Your task to perform on an android device: turn notification dots off Image 0: 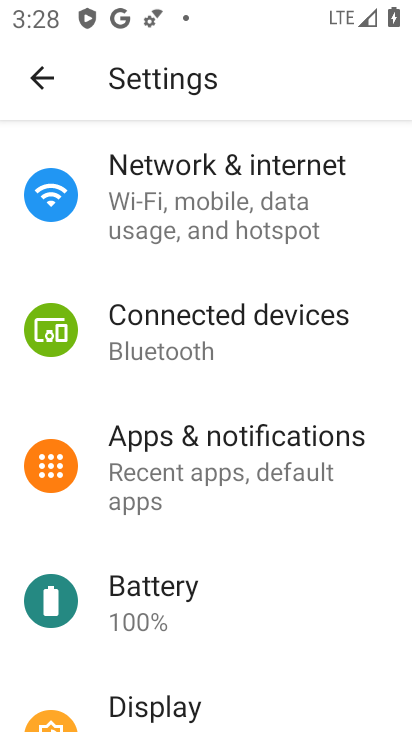
Step 0: press home button
Your task to perform on an android device: turn notification dots off Image 1: 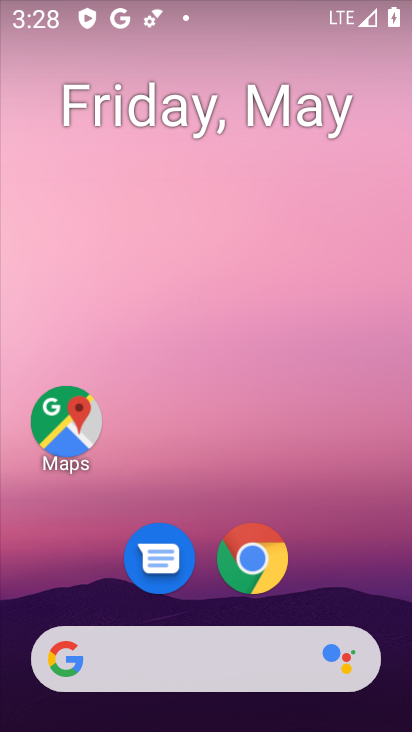
Step 1: drag from (204, 665) to (282, 169)
Your task to perform on an android device: turn notification dots off Image 2: 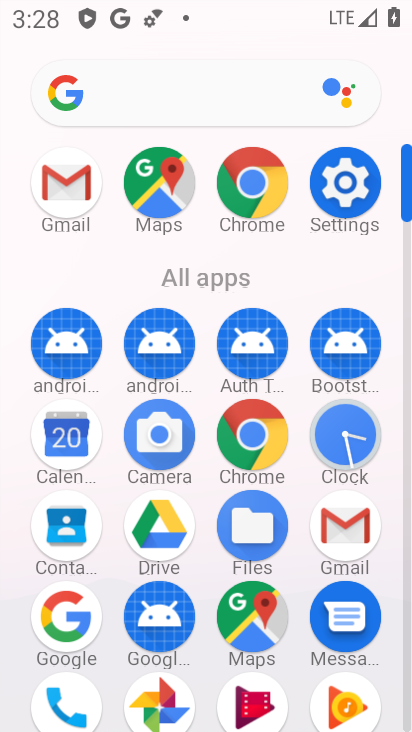
Step 2: click (347, 180)
Your task to perform on an android device: turn notification dots off Image 3: 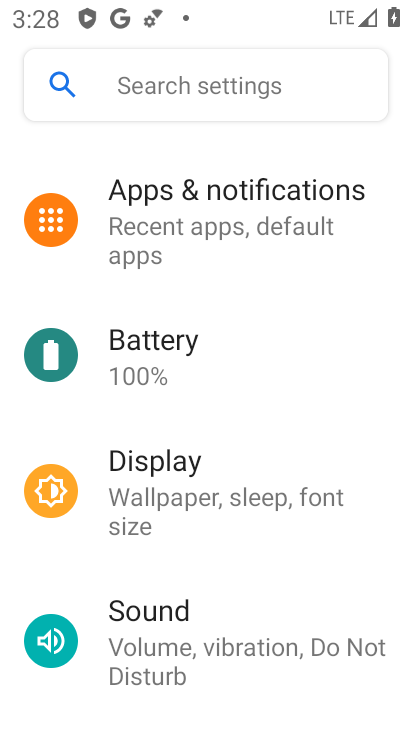
Step 3: click (234, 607)
Your task to perform on an android device: turn notification dots off Image 4: 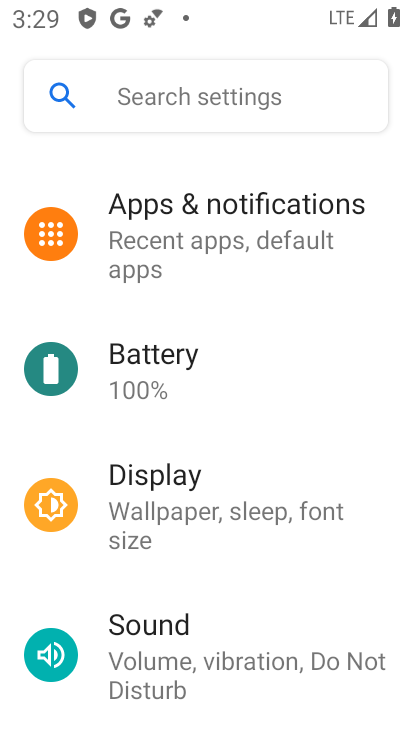
Step 4: click (268, 229)
Your task to perform on an android device: turn notification dots off Image 5: 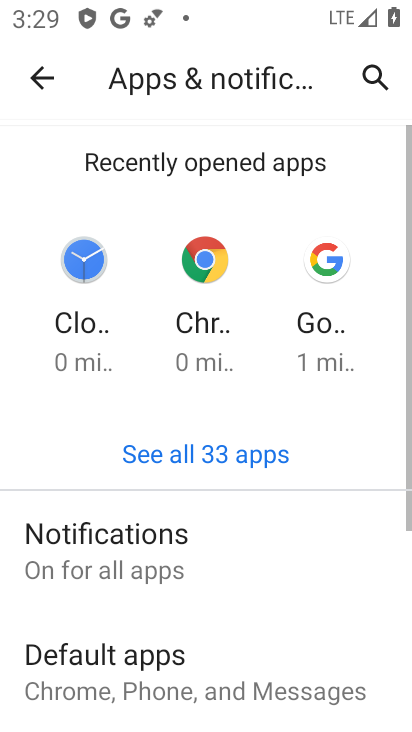
Step 5: click (170, 563)
Your task to perform on an android device: turn notification dots off Image 6: 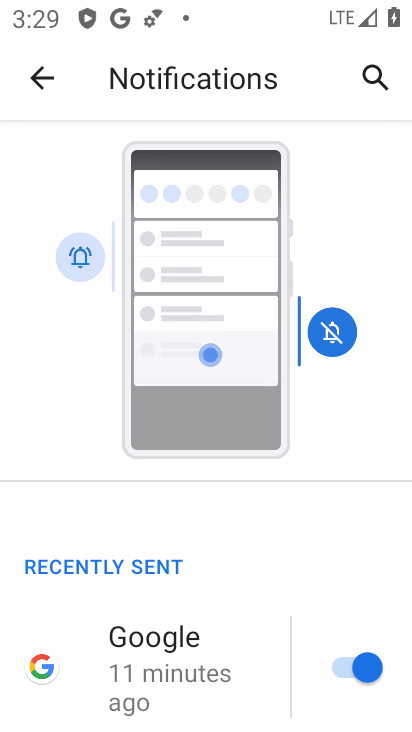
Step 6: drag from (222, 692) to (263, 218)
Your task to perform on an android device: turn notification dots off Image 7: 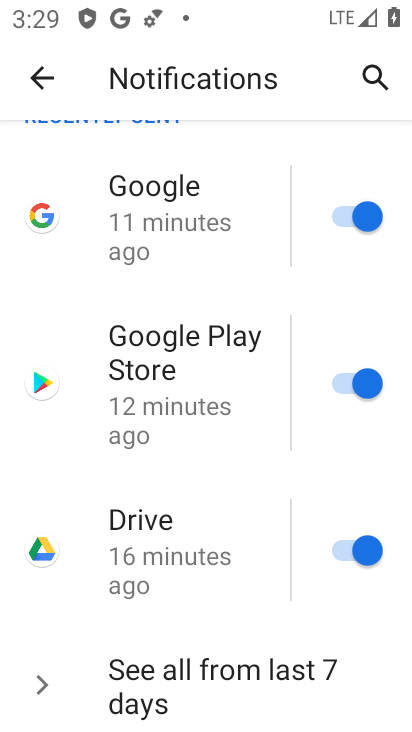
Step 7: drag from (202, 628) to (280, 205)
Your task to perform on an android device: turn notification dots off Image 8: 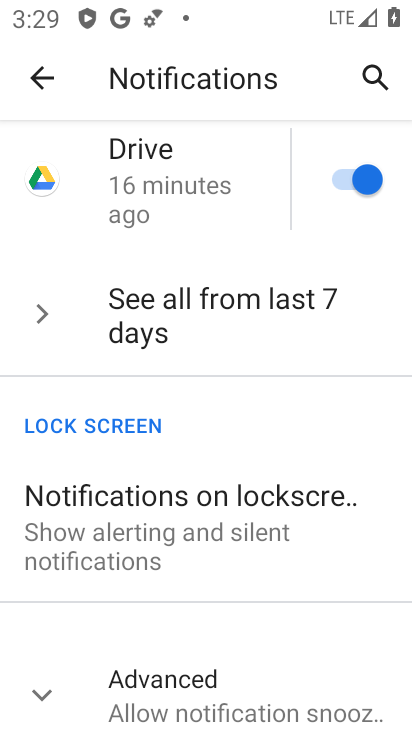
Step 8: click (177, 686)
Your task to perform on an android device: turn notification dots off Image 9: 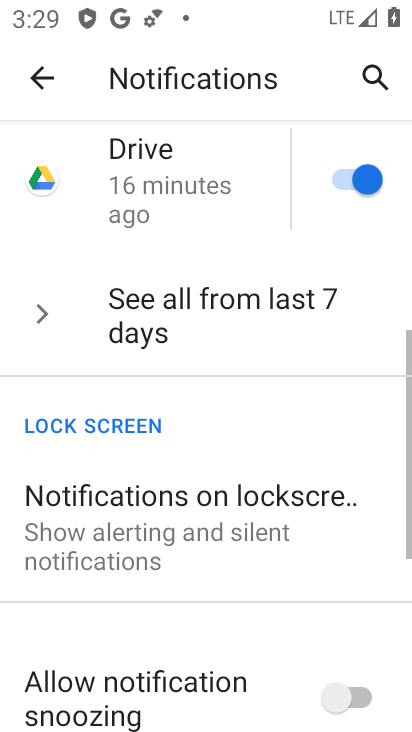
Step 9: drag from (224, 645) to (267, 251)
Your task to perform on an android device: turn notification dots off Image 10: 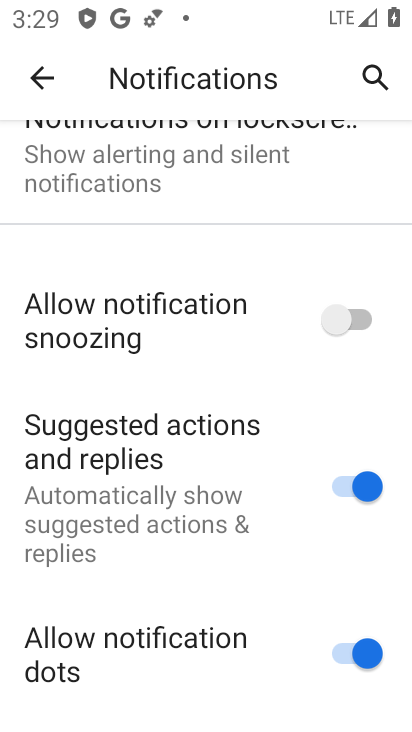
Step 10: drag from (268, 645) to (304, 417)
Your task to perform on an android device: turn notification dots off Image 11: 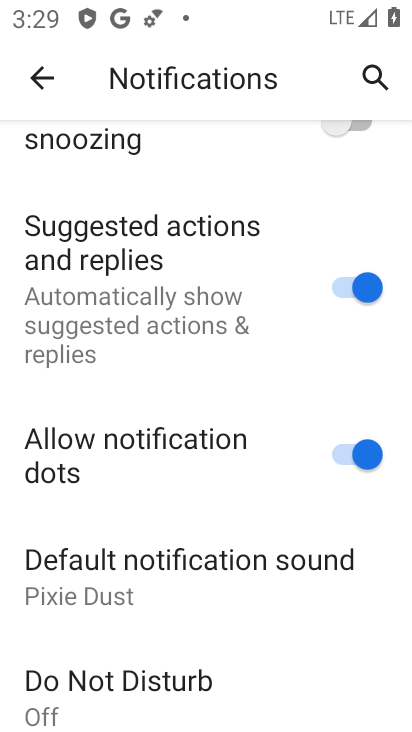
Step 11: click (345, 454)
Your task to perform on an android device: turn notification dots off Image 12: 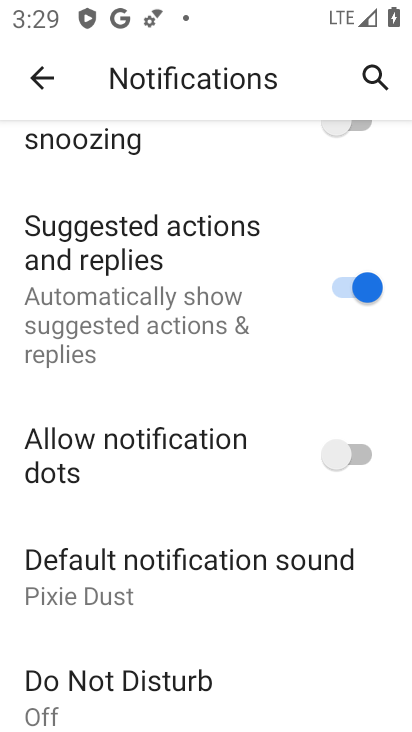
Step 12: task complete